Your task to perform on an android device: Go to ESPN.com Image 0: 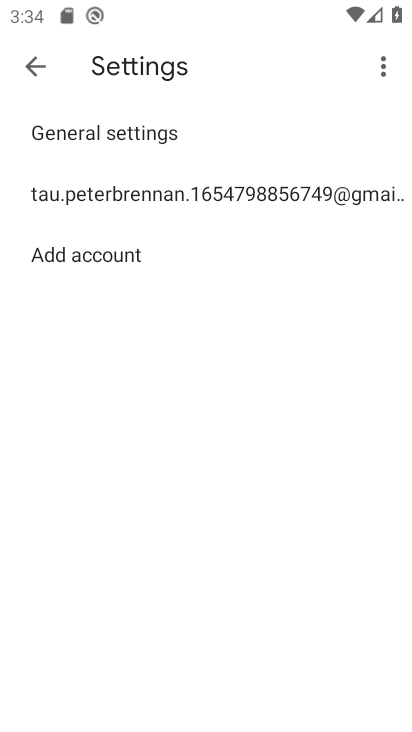
Step 0: press home button
Your task to perform on an android device: Go to ESPN.com Image 1: 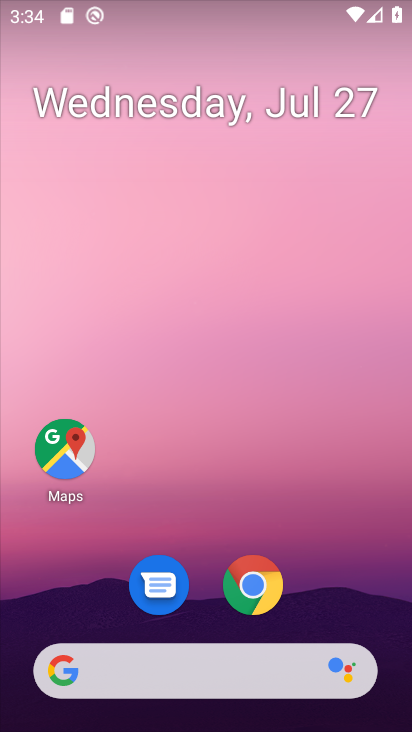
Step 1: click (237, 676)
Your task to perform on an android device: Go to ESPN.com Image 2: 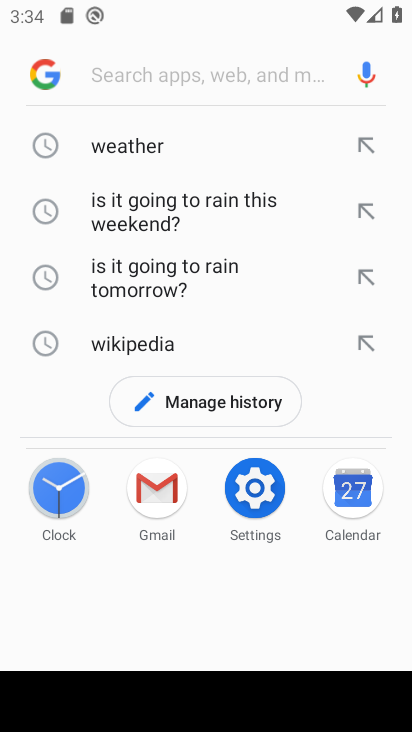
Step 2: type "espn.com"
Your task to perform on an android device: Go to ESPN.com Image 3: 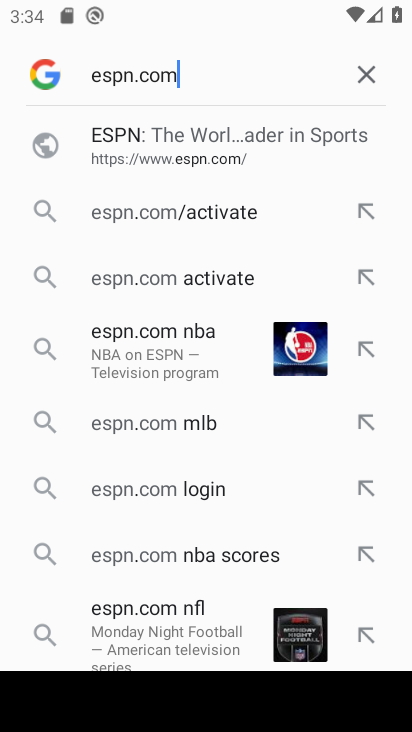
Step 3: click (198, 149)
Your task to perform on an android device: Go to ESPN.com Image 4: 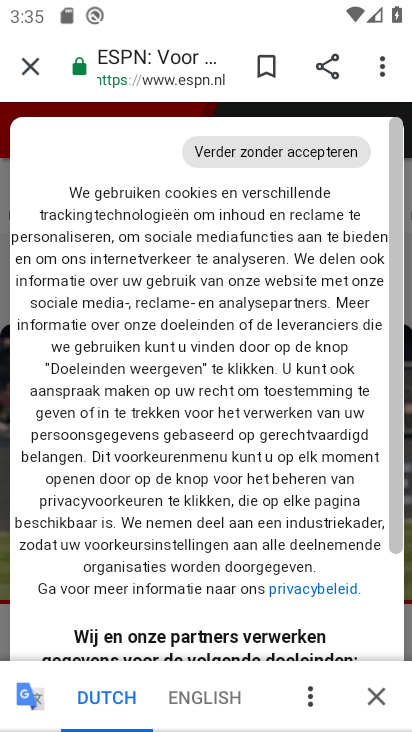
Step 4: click (216, 691)
Your task to perform on an android device: Go to ESPN.com Image 5: 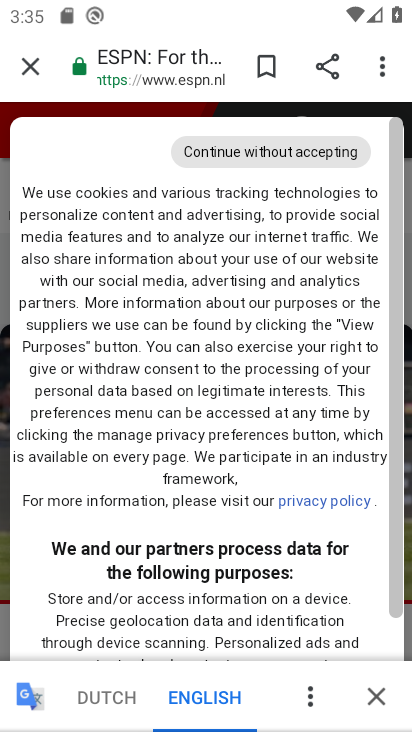
Step 5: click (323, 150)
Your task to perform on an android device: Go to ESPN.com Image 6: 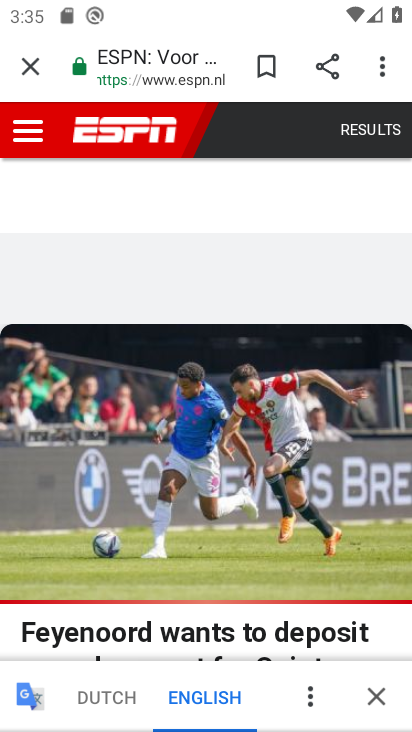
Step 6: task complete